Your task to perform on an android device: toggle notification dots Image 0: 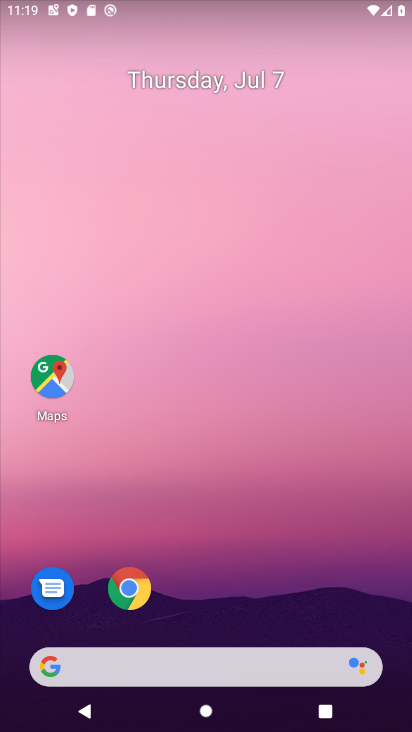
Step 0: drag from (211, 586) to (286, 62)
Your task to perform on an android device: toggle notification dots Image 1: 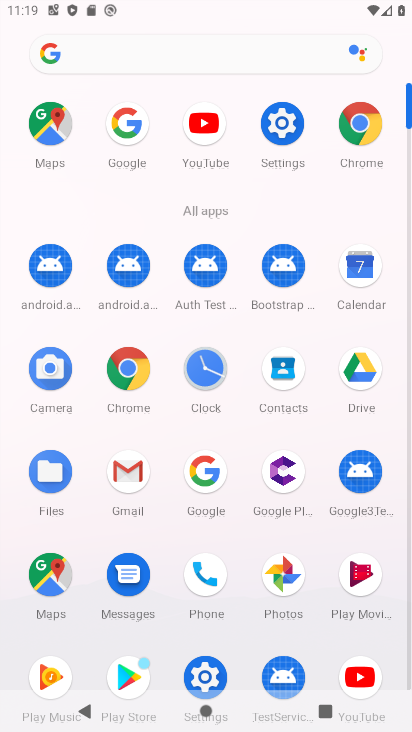
Step 1: click (285, 124)
Your task to perform on an android device: toggle notification dots Image 2: 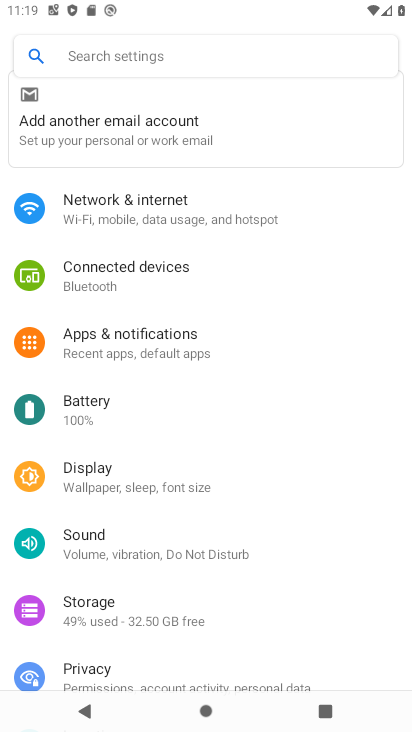
Step 2: drag from (227, 605) to (248, 447)
Your task to perform on an android device: toggle notification dots Image 3: 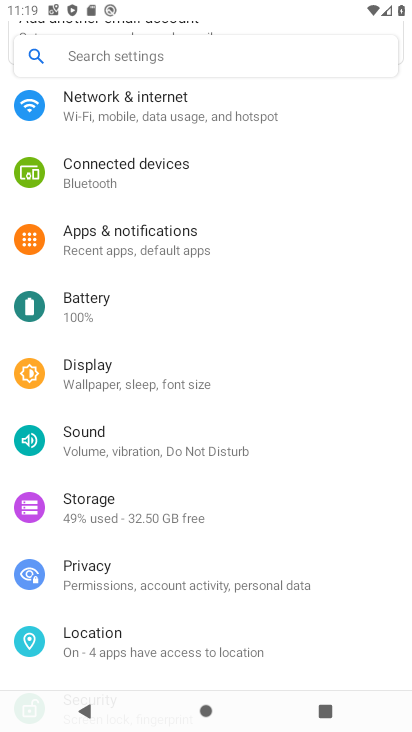
Step 3: click (135, 241)
Your task to perform on an android device: toggle notification dots Image 4: 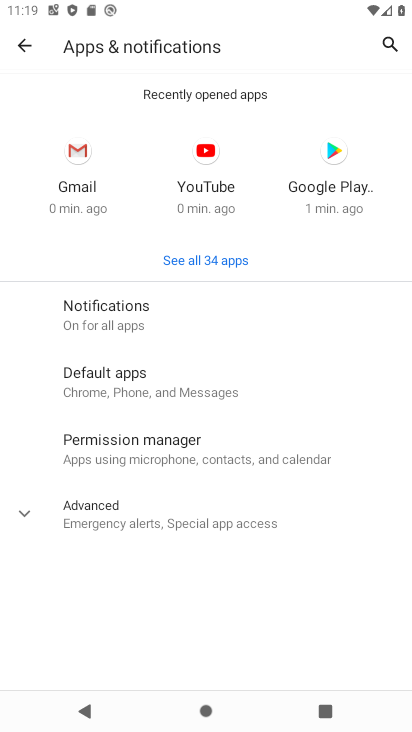
Step 4: click (162, 312)
Your task to perform on an android device: toggle notification dots Image 5: 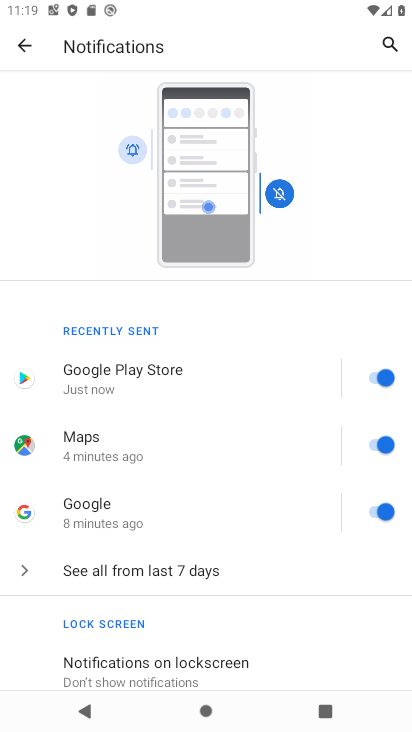
Step 5: drag from (216, 640) to (353, 106)
Your task to perform on an android device: toggle notification dots Image 6: 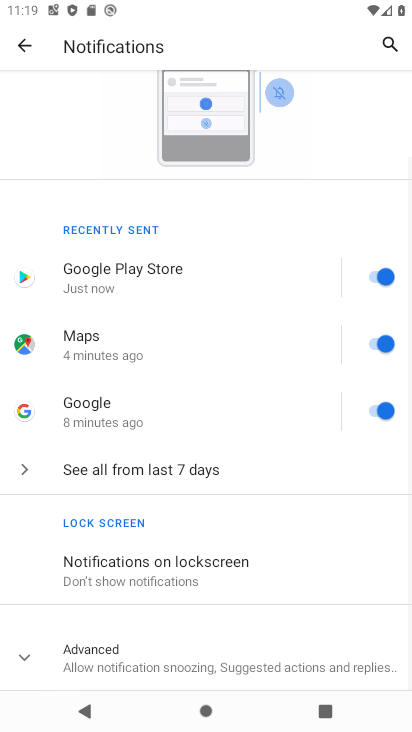
Step 6: click (108, 666)
Your task to perform on an android device: toggle notification dots Image 7: 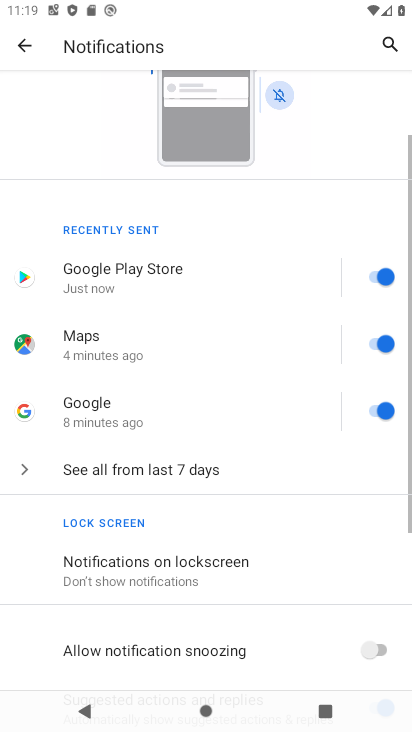
Step 7: drag from (264, 618) to (304, 256)
Your task to perform on an android device: toggle notification dots Image 8: 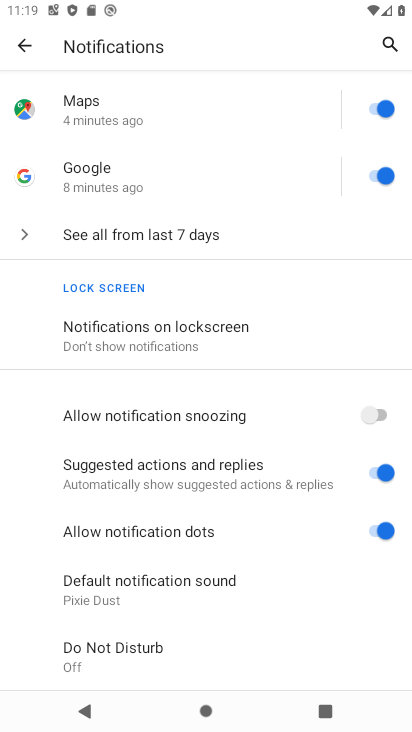
Step 8: click (381, 537)
Your task to perform on an android device: toggle notification dots Image 9: 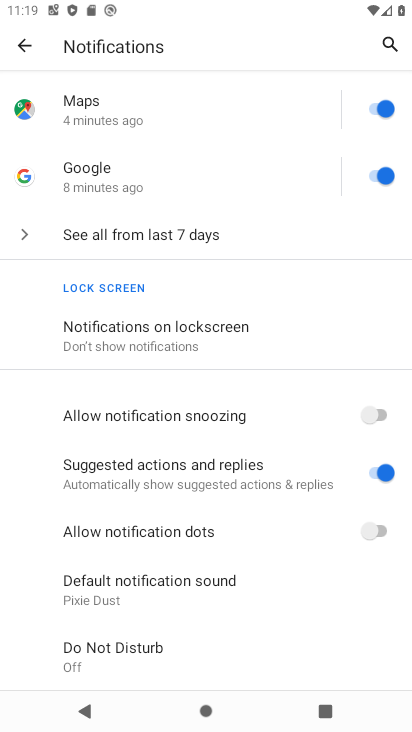
Step 9: task complete